Your task to perform on an android device: change the clock display to analog Image 0: 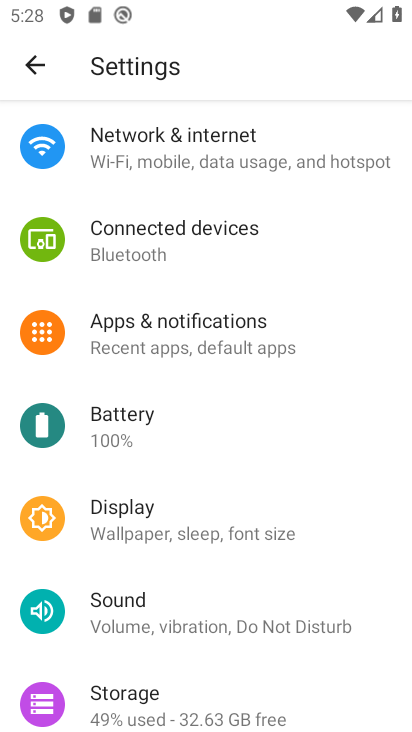
Step 0: press home button
Your task to perform on an android device: change the clock display to analog Image 1: 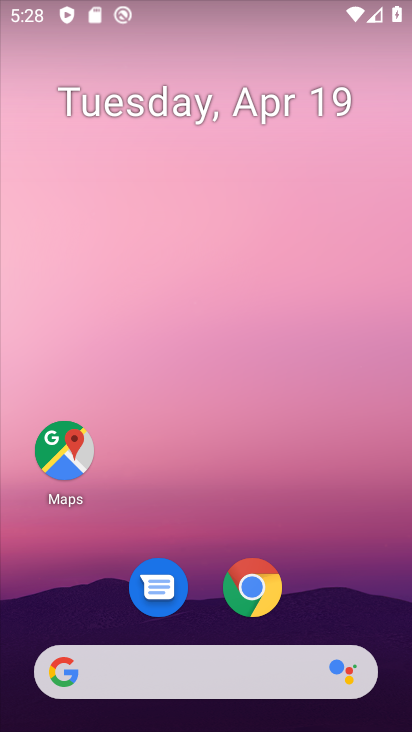
Step 1: drag from (204, 532) to (248, 6)
Your task to perform on an android device: change the clock display to analog Image 2: 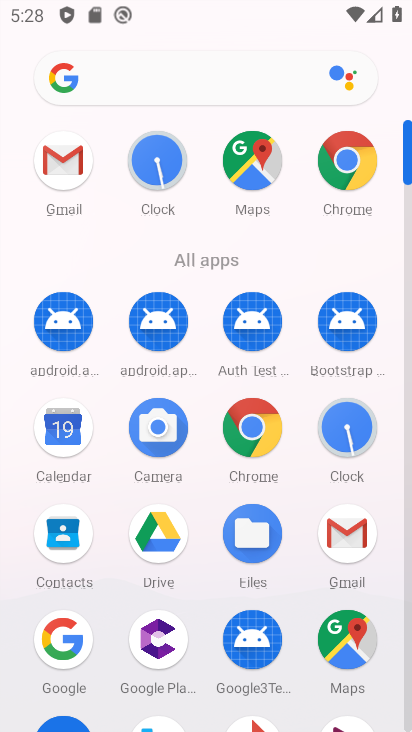
Step 2: click (360, 403)
Your task to perform on an android device: change the clock display to analog Image 3: 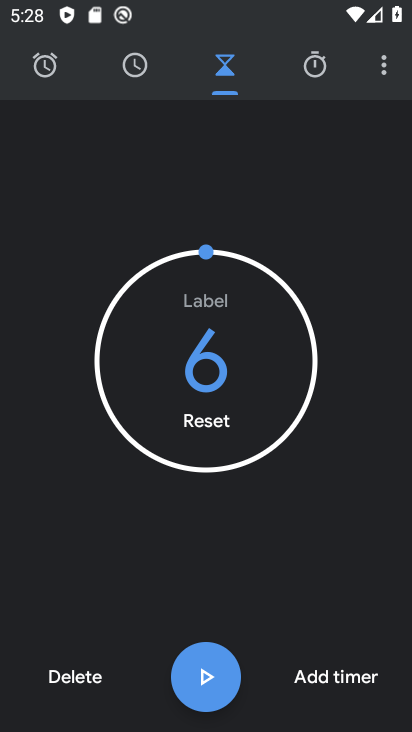
Step 3: click (391, 62)
Your task to perform on an android device: change the clock display to analog Image 4: 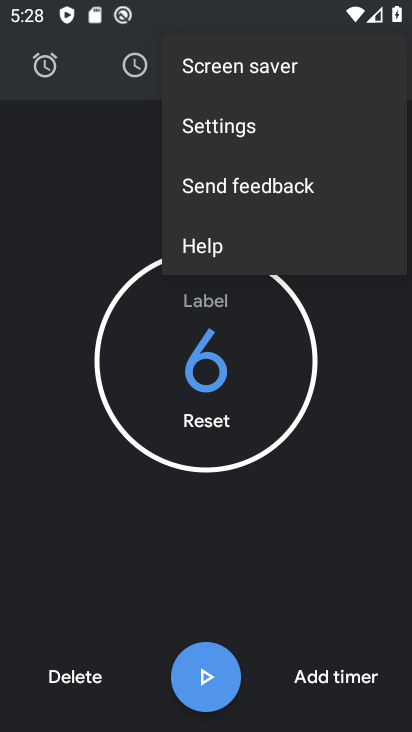
Step 4: click (266, 118)
Your task to perform on an android device: change the clock display to analog Image 5: 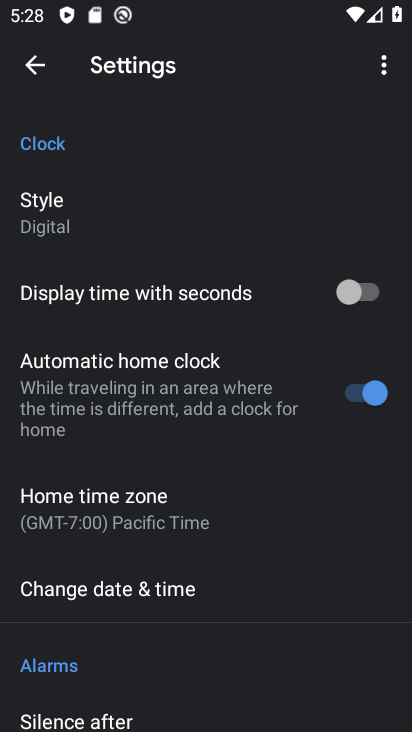
Step 5: click (114, 226)
Your task to perform on an android device: change the clock display to analog Image 6: 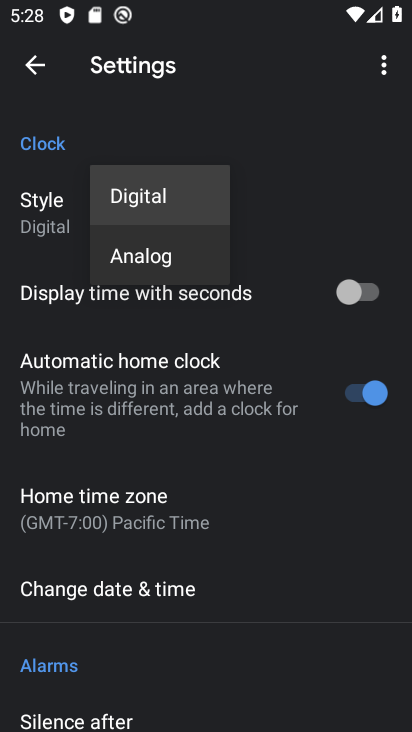
Step 6: click (144, 251)
Your task to perform on an android device: change the clock display to analog Image 7: 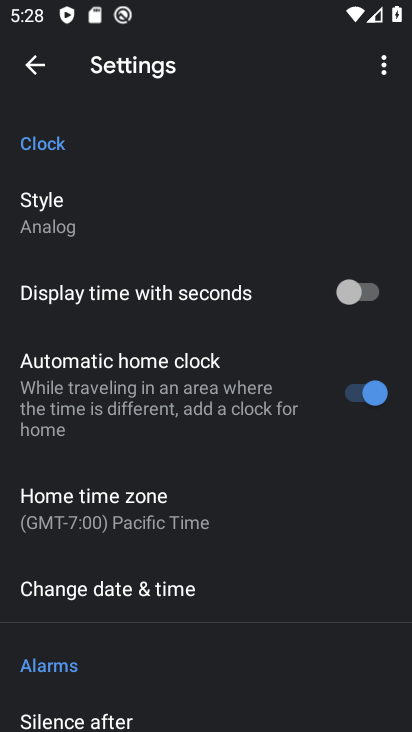
Step 7: task complete